Your task to perform on an android device: delete location history Image 0: 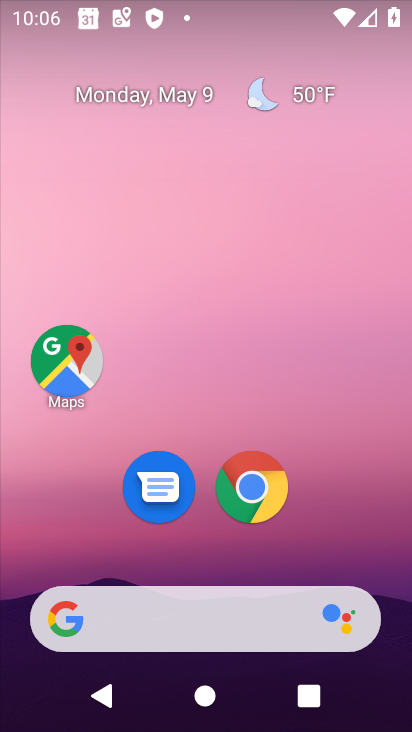
Step 0: press back button
Your task to perform on an android device: delete location history Image 1: 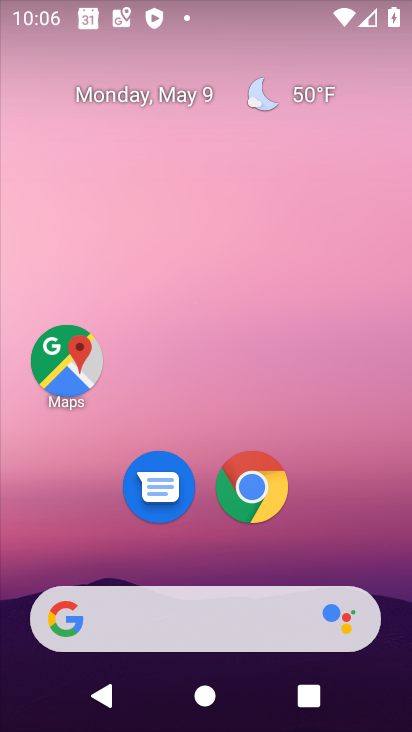
Step 1: drag from (60, 571) to (349, 18)
Your task to perform on an android device: delete location history Image 2: 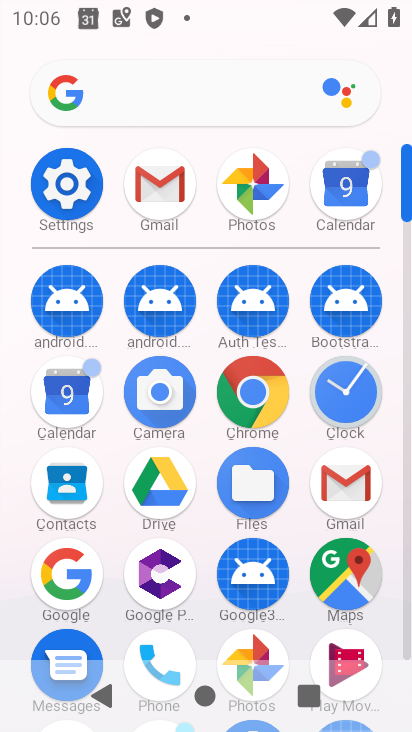
Step 2: click (63, 187)
Your task to perform on an android device: delete location history Image 3: 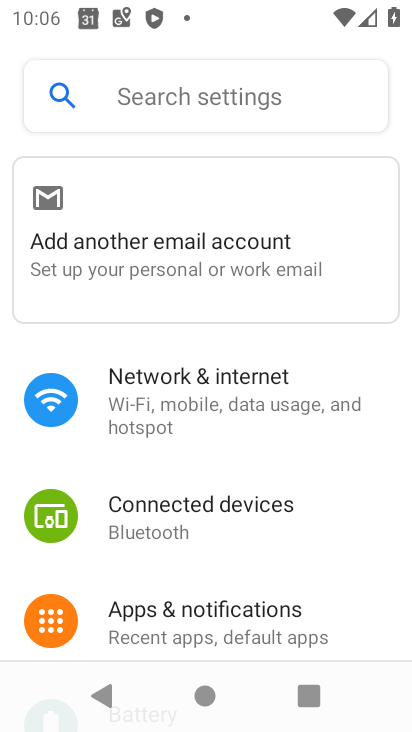
Step 3: drag from (229, 649) to (357, 150)
Your task to perform on an android device: delete location history Image 4: 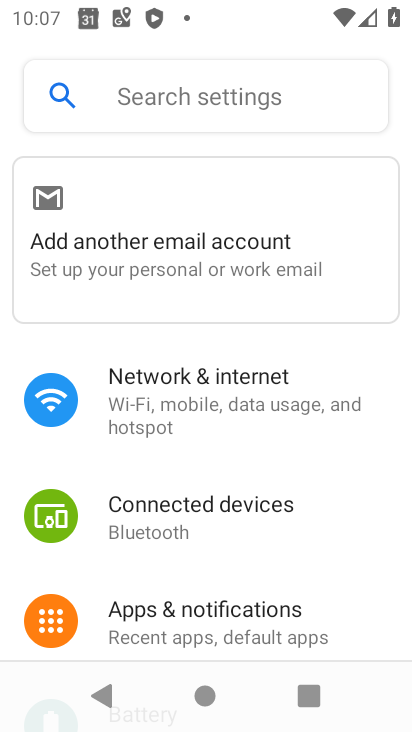
Step 4: drag from (13, 649) to (276, 239)
Your task to perform on an android device: delete location history Image 5: 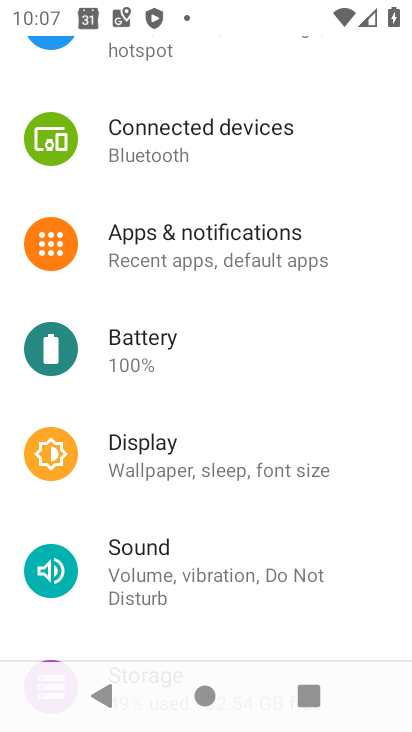
Step 5: drag from (39, 601) to (274, 171)
Your task to perform on an android device: delete location history Image 6: 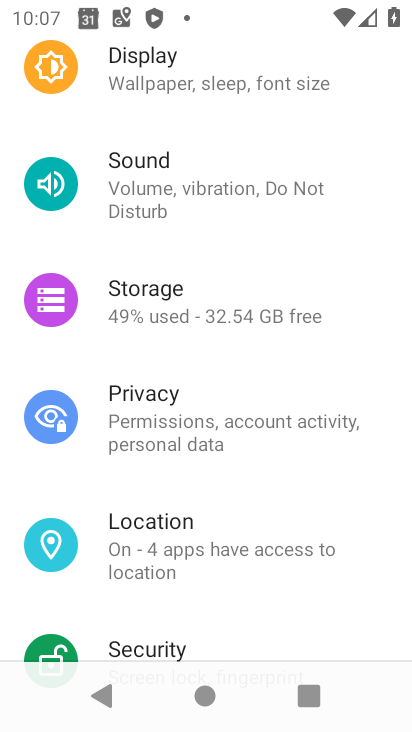
Step 6: click (143, 545)
Your task to perform on an android device: delete location history Image 7: 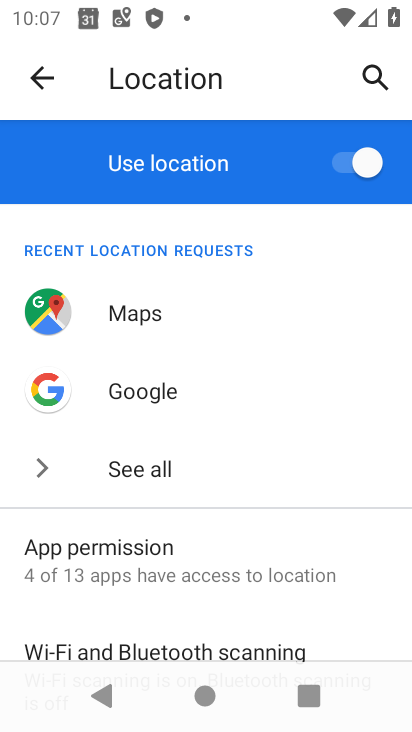
Step 7: drag from (58, 638) to (314, 175)
Your task to perform on an android device: delete location history Image 8: 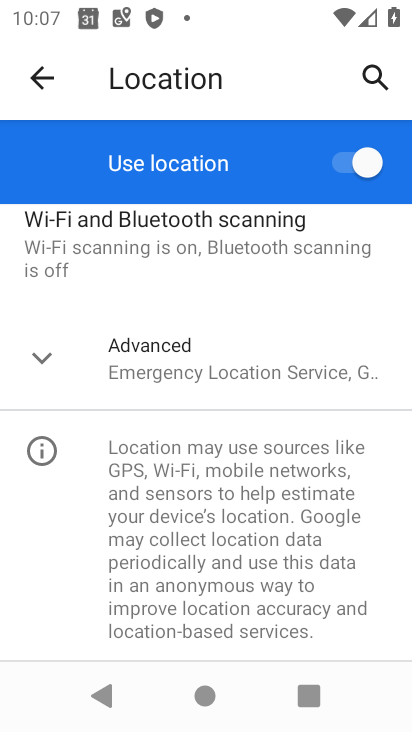
Step 8: click (258, 369)
Your task to perform on an android device: delete location history Image 9: 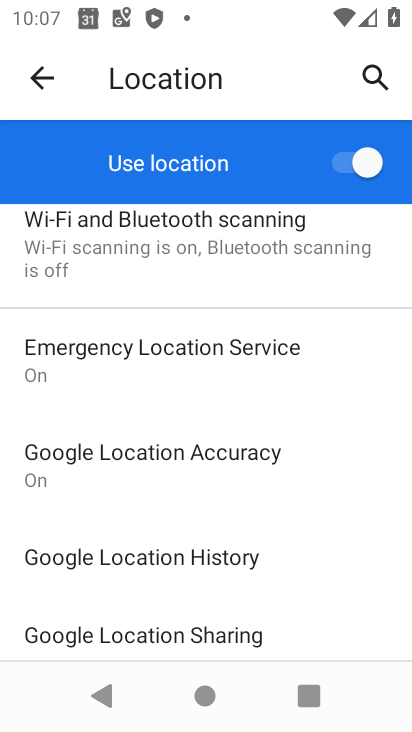
Step 9: click (226, 568)
Your task to perform on an android device: delete location history Image 10: 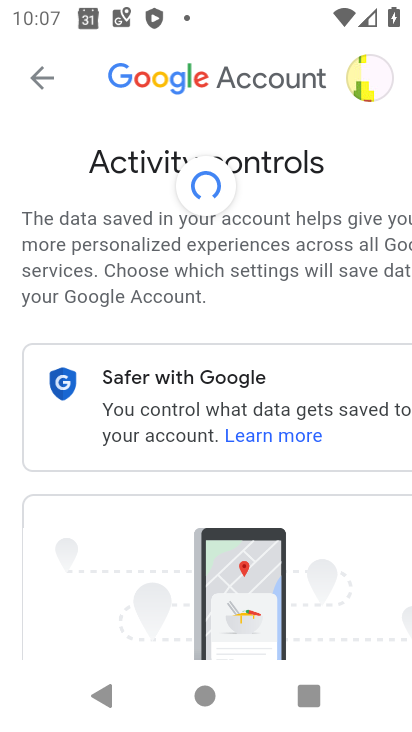
Step 10: drag from (32, 592) to (244, 156)
Your task to perform on an android device: delete location history Image 11: 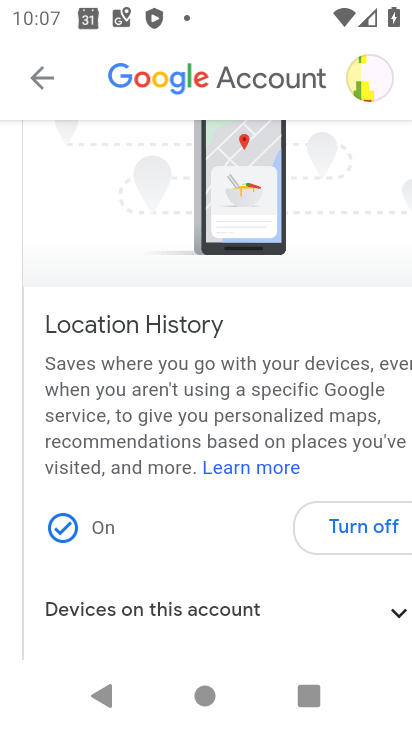
Step 11: drag from (88, 650) to (332, 252)
Your task to perform on an android device: delete location history Image 12: 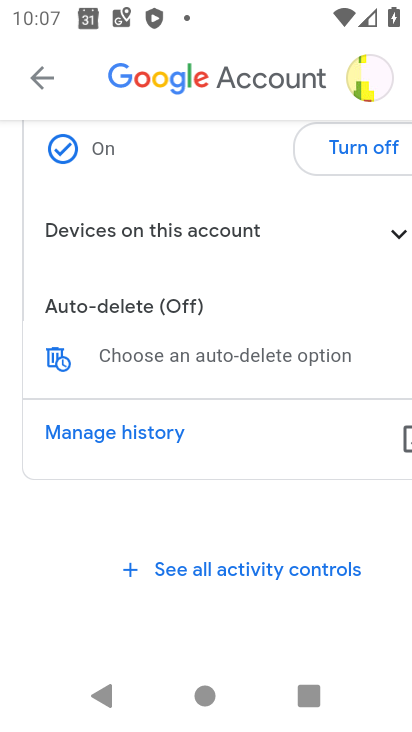
Step 12: click (279, 421)
Your task to perform on an android device: delete location history Image 13: 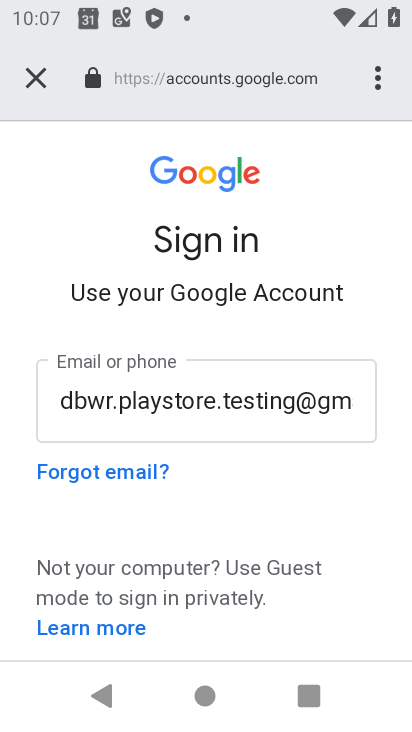
Step 13: press back button
Your task to perform on an android device: delete location history Image 14: 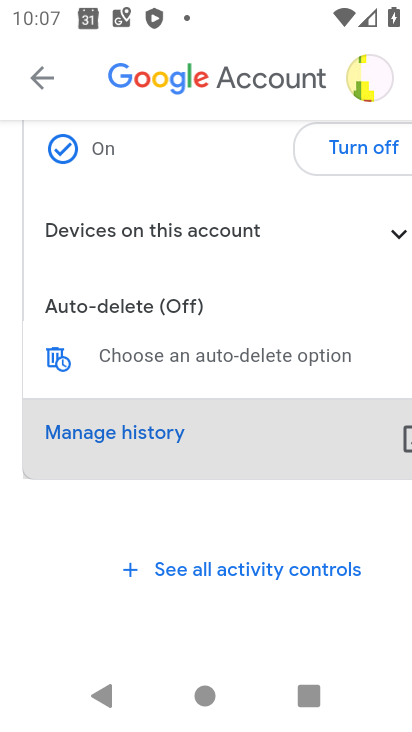
Step 14: click (158, 371)
Your task to perform on an android device: delete location history Image 15: 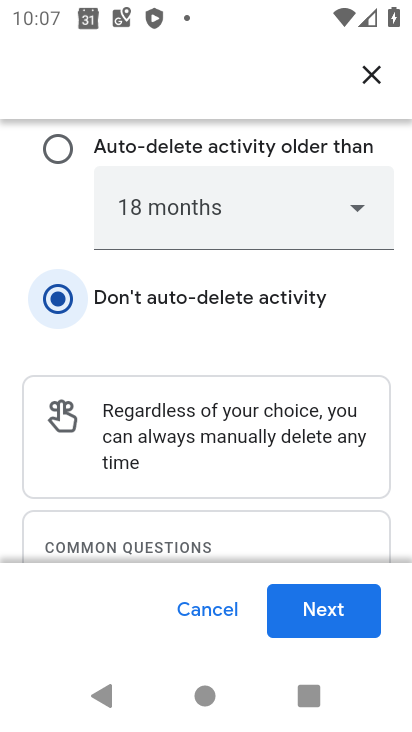
Step 15: click (317, 619)
Your task to perform on an android device: delete location history Image 16: 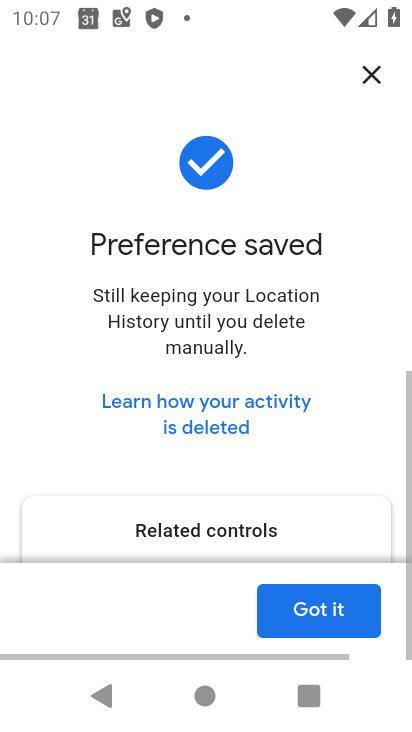
Step 16: click (323, 597)
Your task to perform on an android device: delete location history Image 17: 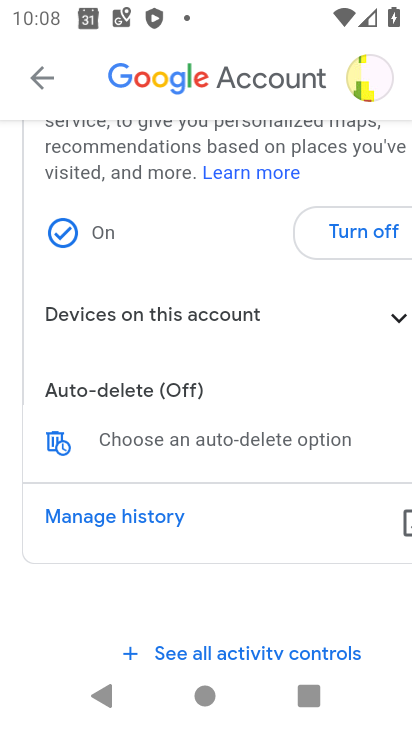
Step 17: task complete